Your task to perform on an android device: search for 2021 honda civic Image 0: 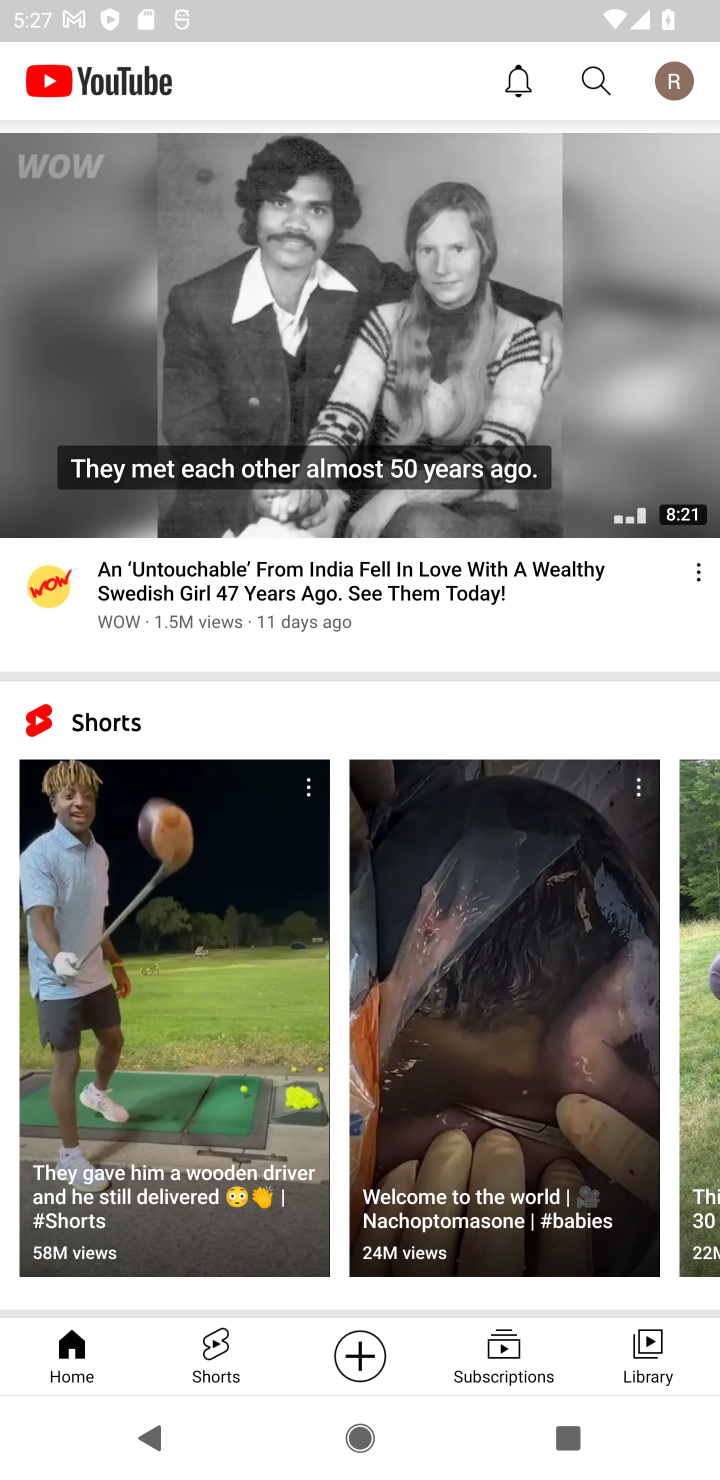
Step 0: press home button
Your task to perform on an android device: search for 2021 honda civic Image 1: 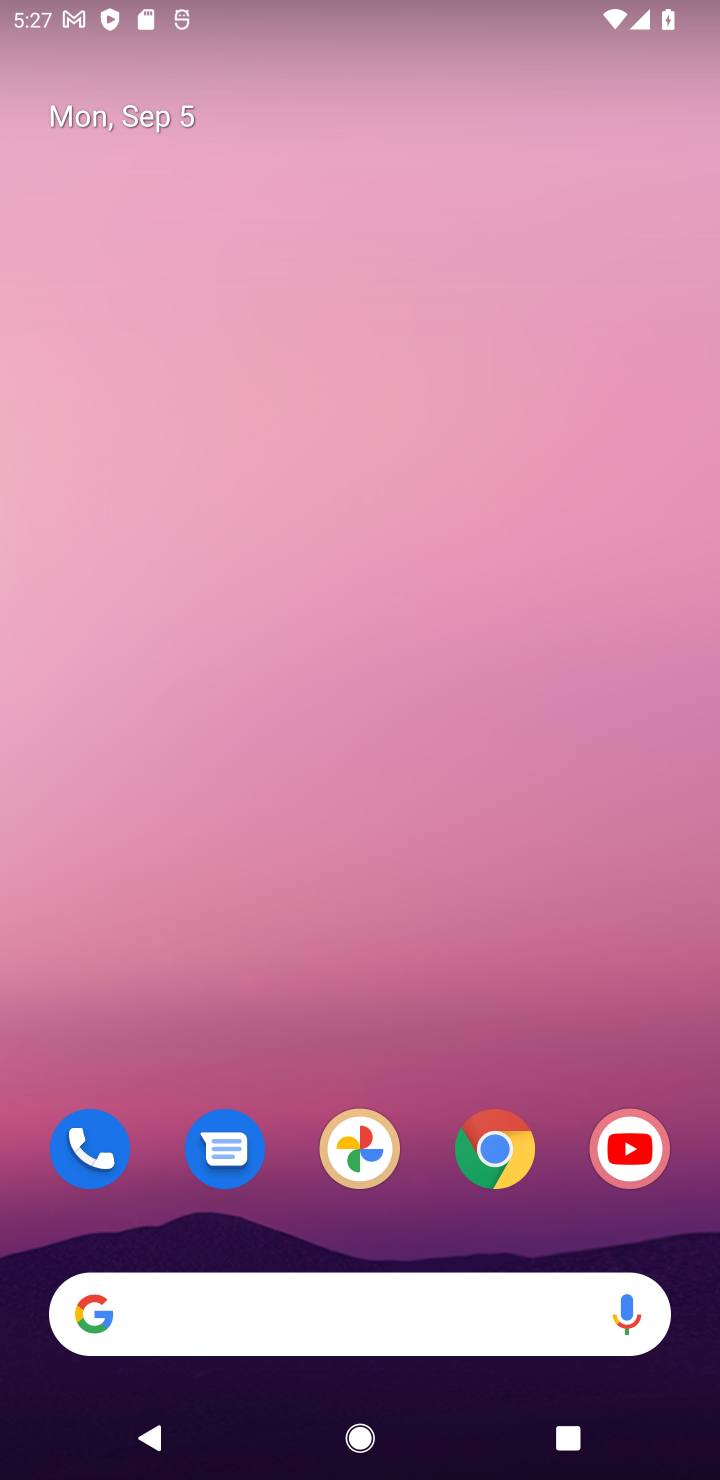
Step 1: click (493, 1151)
Your task to perform on an android device: search for 2021 honda civic Image 2: 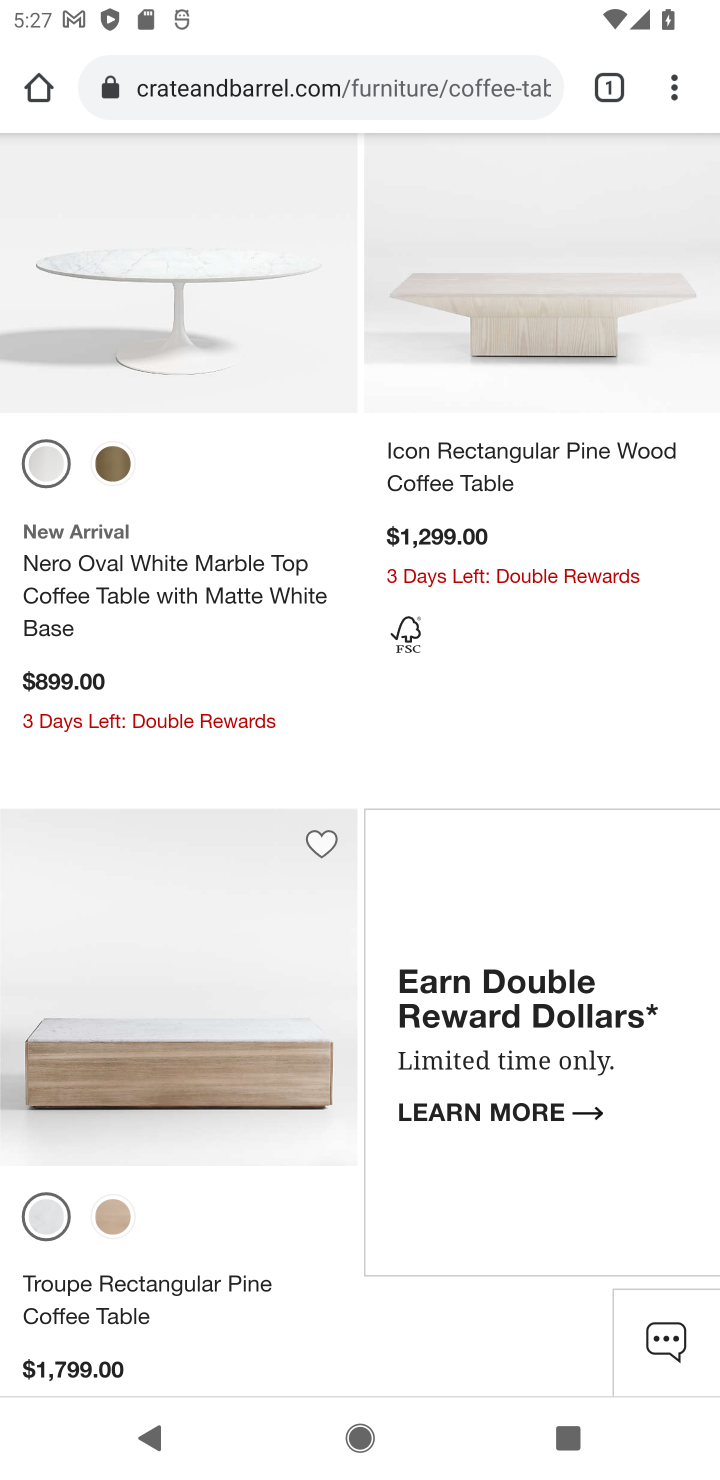
Step 2: press home button
Your task to perform on an android device: search for 2021 honda civic Image 3: 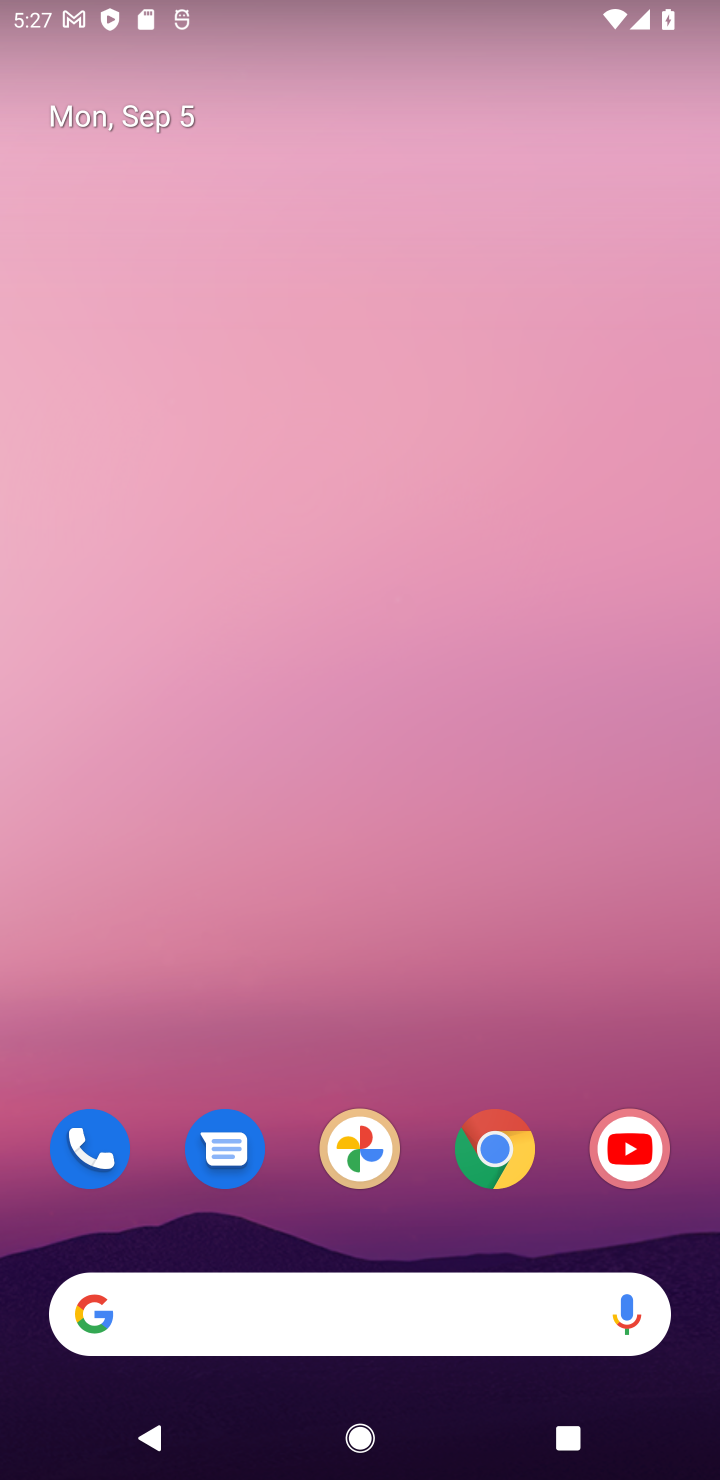
Step 3: click (488, 1155)
Your task to perform on an android device: search for 2021 honda civic Image 4: 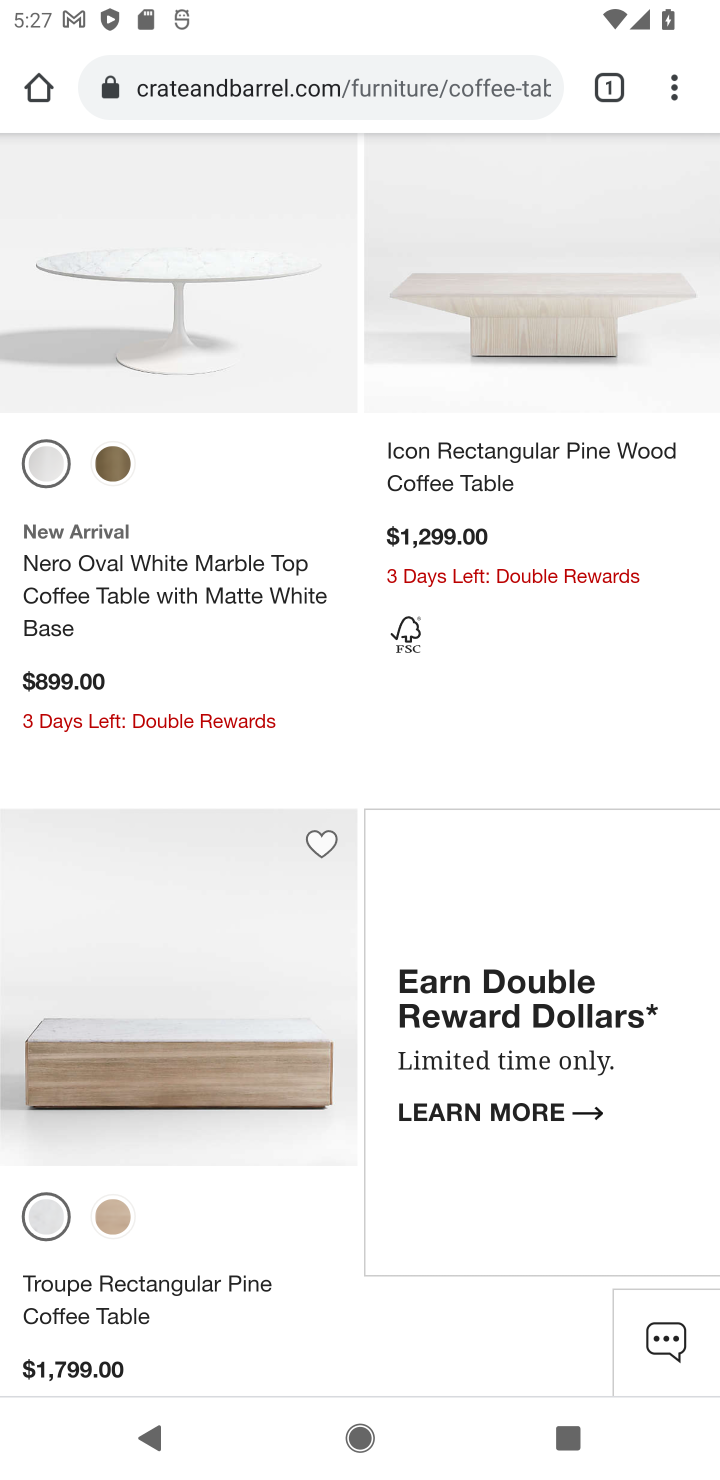
Step 4: click (292, 62)
Your task to perform on an android device: search for 2021 honda civic Image 5: 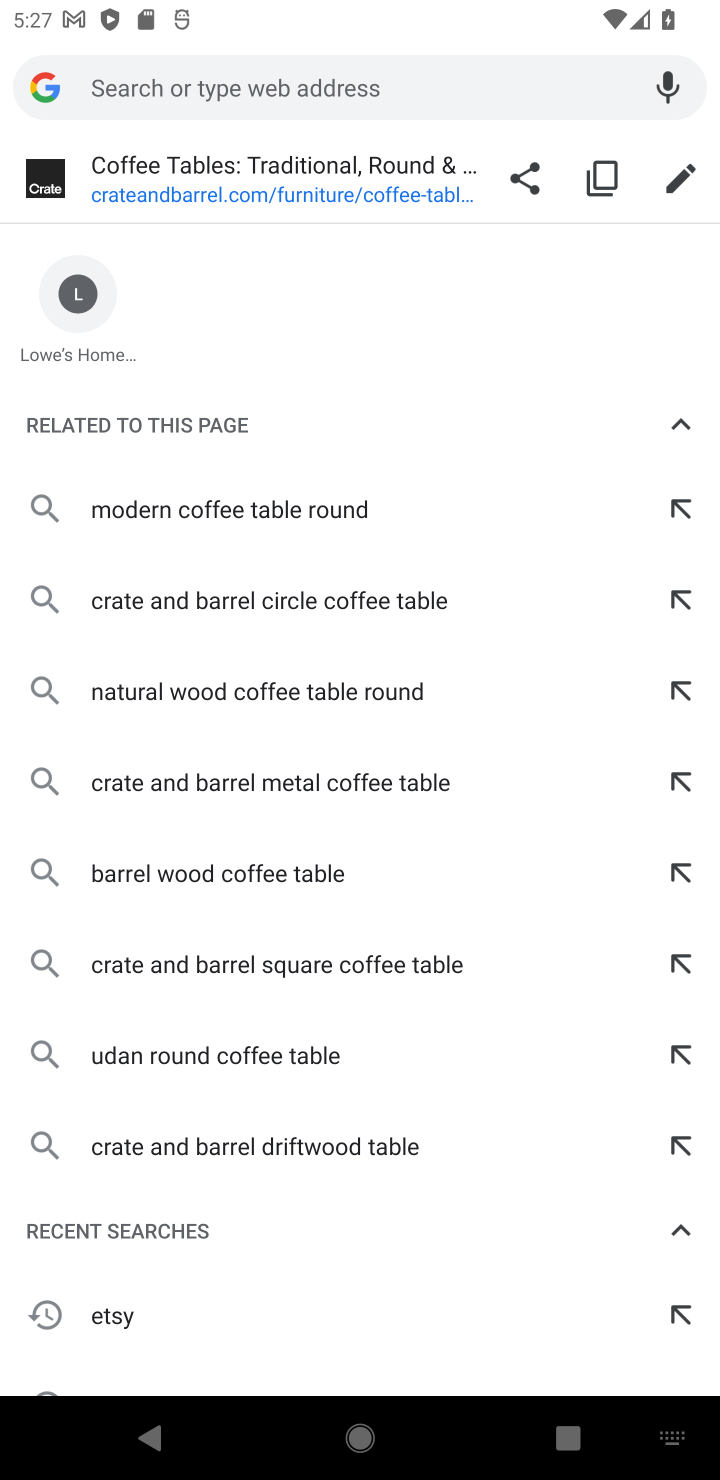
Step 5: type " 2021 honda civic"
Your task to perform on an android device: search for 2021 honda civic Image 6: 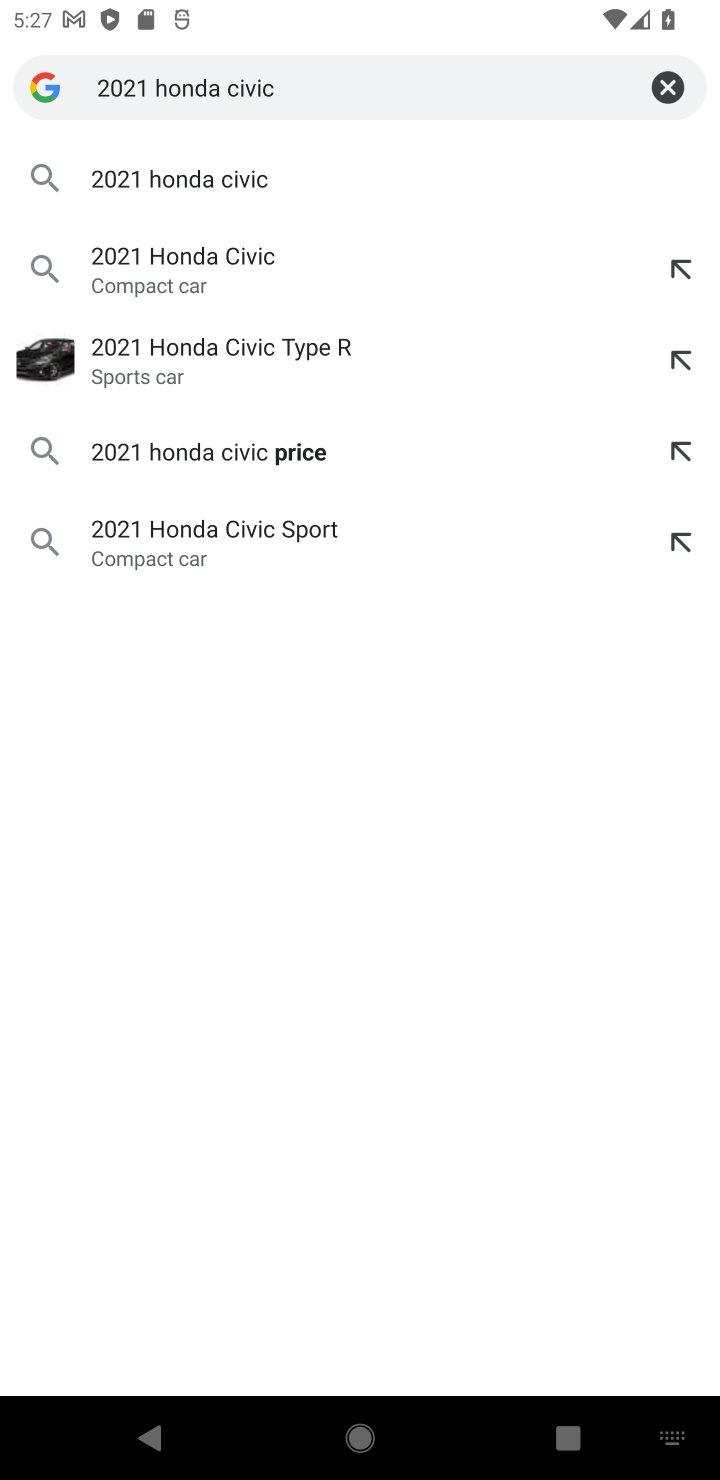
Step 6: click (128, 165)
Your task to perform on an android device: search for 2021 honda civic Image 7: 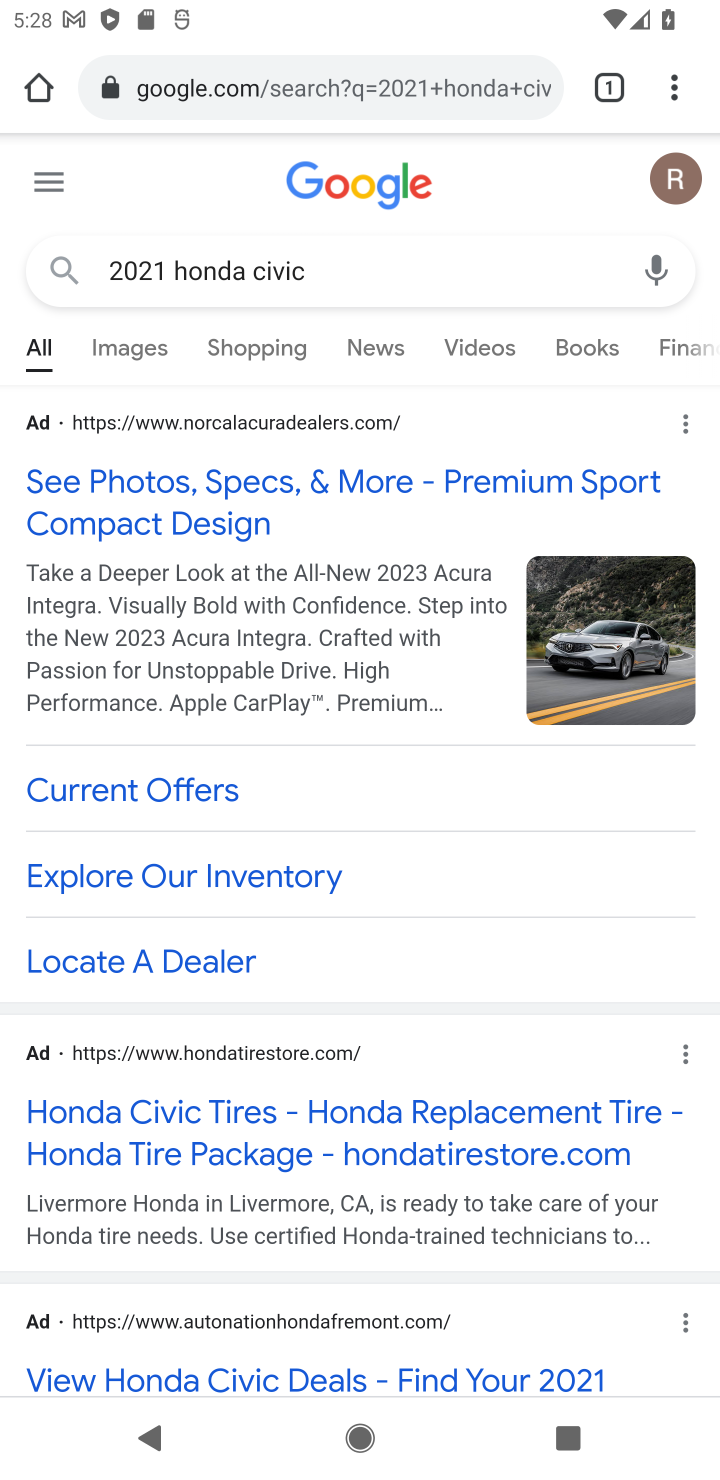
Step 7: task complete